Your task to perform on an android device: Do I have any events today? Image 0: 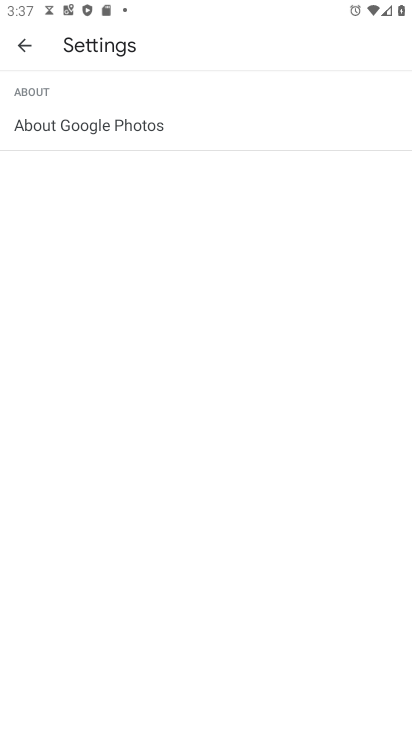
Step 0: press home button
Your task to perform on an android device: Do I have any events today? Image 1: 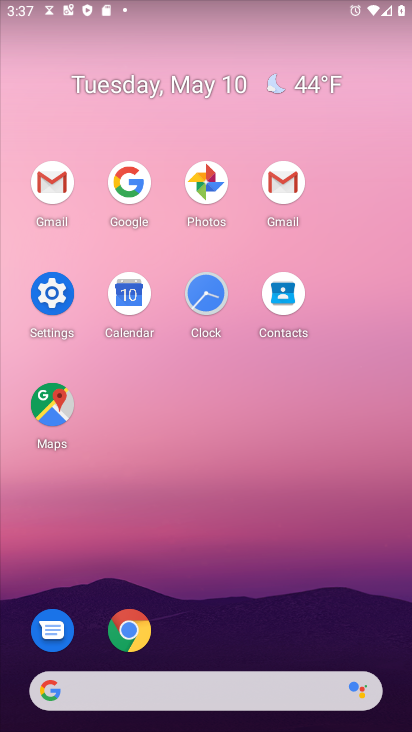
Step 1: click (139, 304)
Your task to perform on an android device: Do I have any events today? Image 2: 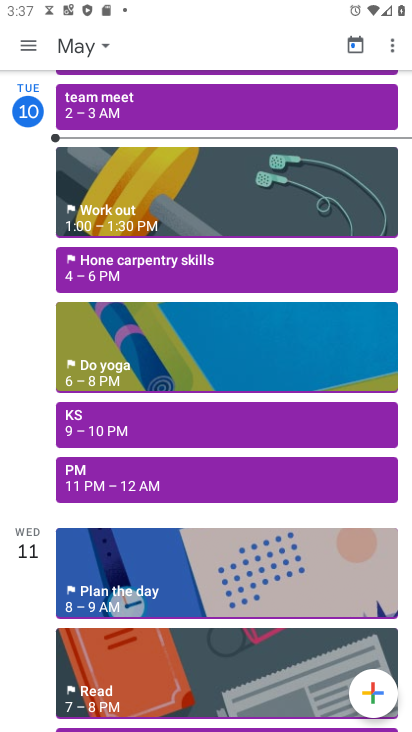
Step 2: task complete